Your task to perform on an android device: Open Google Chrome Image 0: 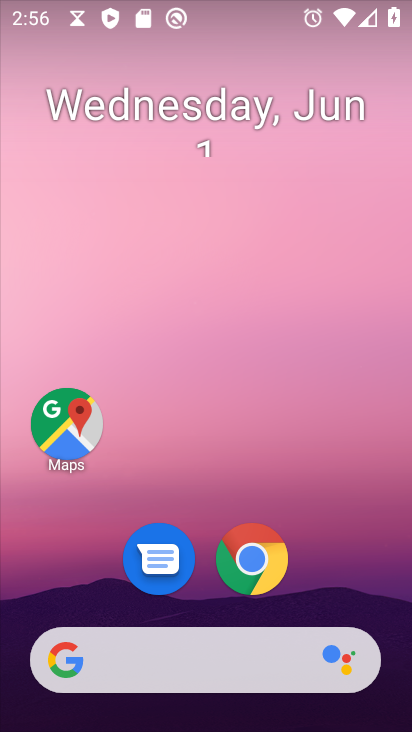
Step 0: click (260, 558)
Your task to perform on an android device: Open Google Chrome Image 1: 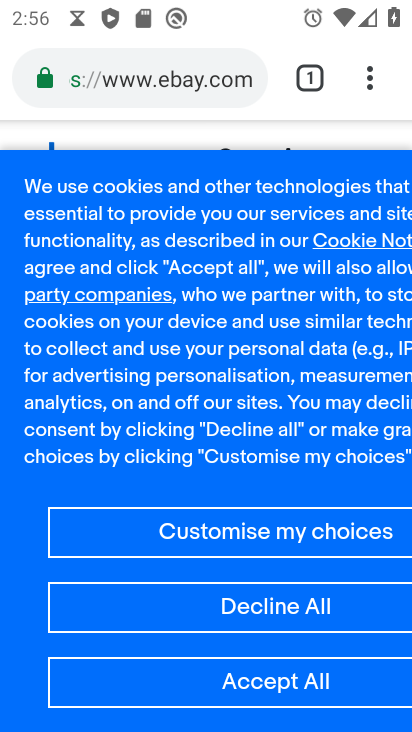
Step 1: task complete